Your task to perform on an android device: Open calendar and show me the fourth week of next month Image 0: 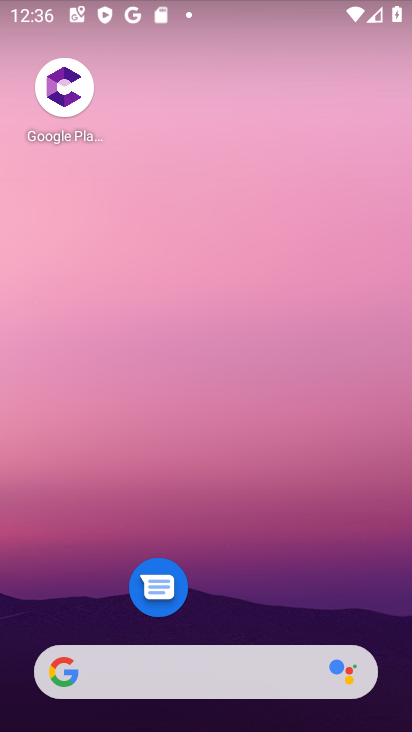
Step 0: drag from (236, 462) to (238, 22)
Your task to perform on an android device: Open calendar and show me the fourth week of next month Image 1: 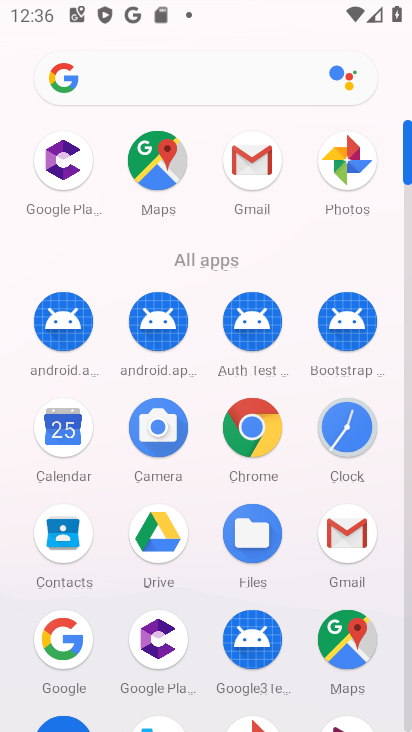
Step 1: click (51, 428)
Your task to perform on an android device: Open calendar and show me the fourth week of next month Image 2: 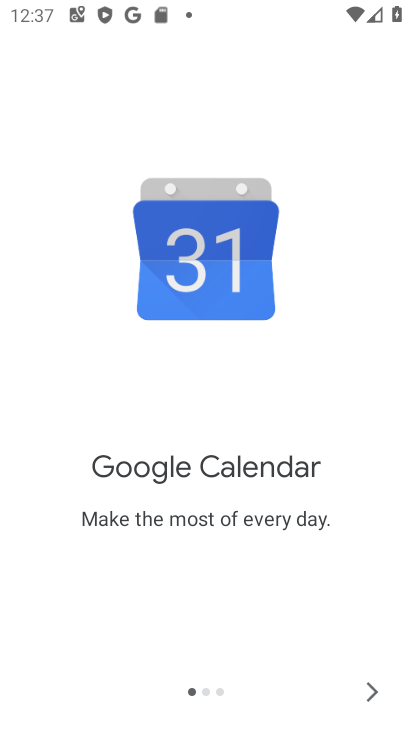
Step 2: click (388, 681)
Your task to perform on an android device: Open calendar and show me the fourth week of next month Image 3: 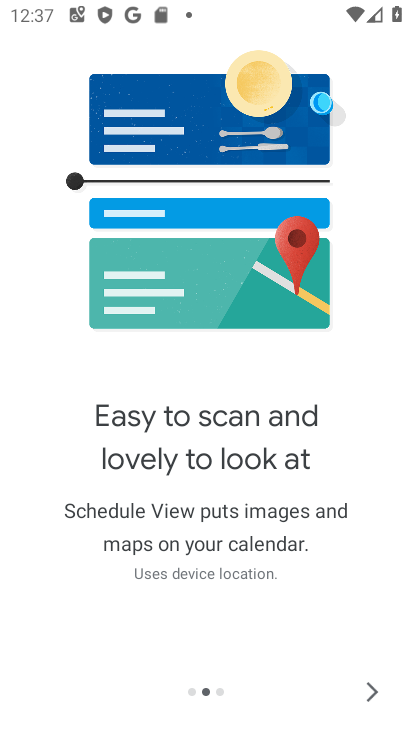
Step 3: click (367, 688)
Your task to perform on an android device: Open calendar and show me the fourth week of next month Image 4: 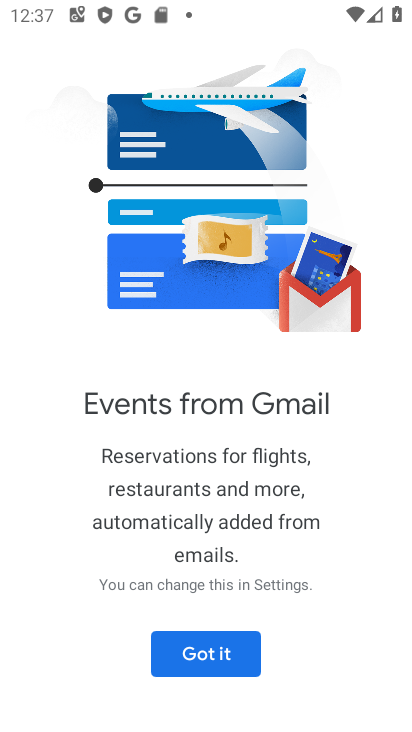
Step 4: click (193, 658)
Your task to perform on an android device: Open calendar and show me the fourth week of next month Image 5: 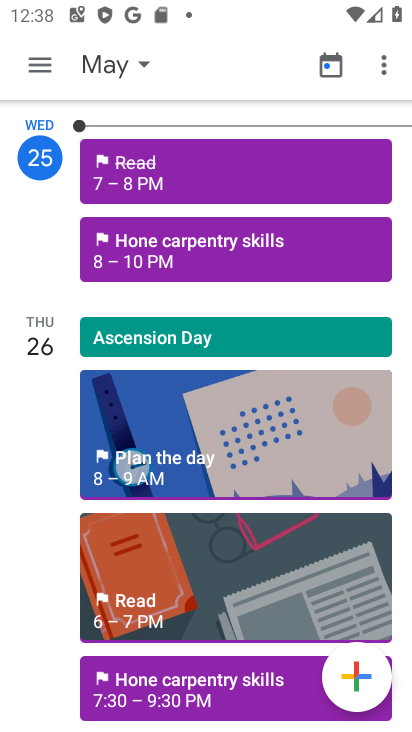
Step 5: click (126, 68)
Your task to perform on an android device: Open calendar and show me the fourth week of next month Image 6: 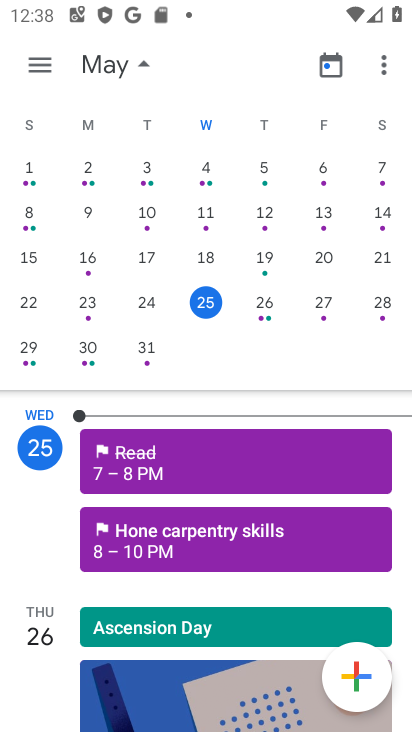
Step 6: drag from (379, 286) to (85, 291)
Your task to perform on an android device: Open calendar and show me the fourth week of next month Image 7: 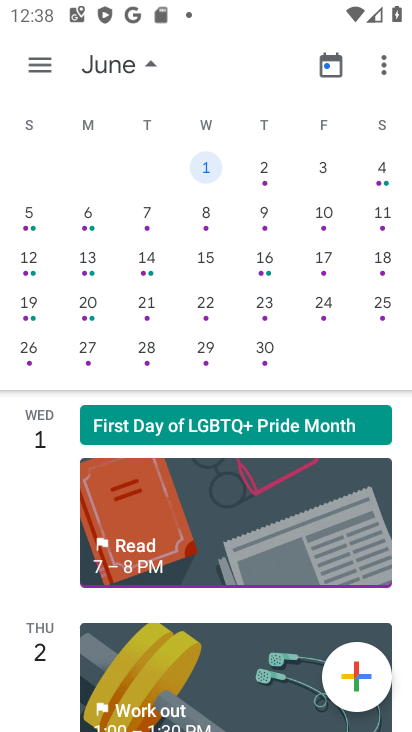
Step 7: click (40, 308)
Your task to perform on an android device: Open calendar and show me the fourth week of next month Image 8: 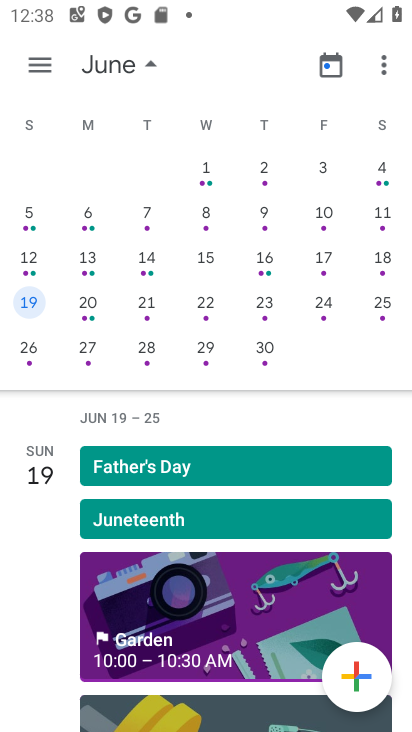
Step 8: task complete